Your task to perform on an android device: Open calendar and show me the first week of next month Image 0: 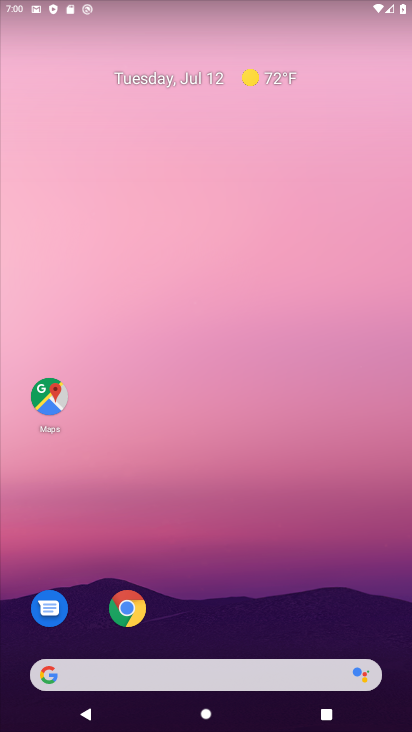
Step 0: drag from (239, 565) to (189, 111)
Your task to perform on an android device: Open calendar and show me the first week of next month Image 1: 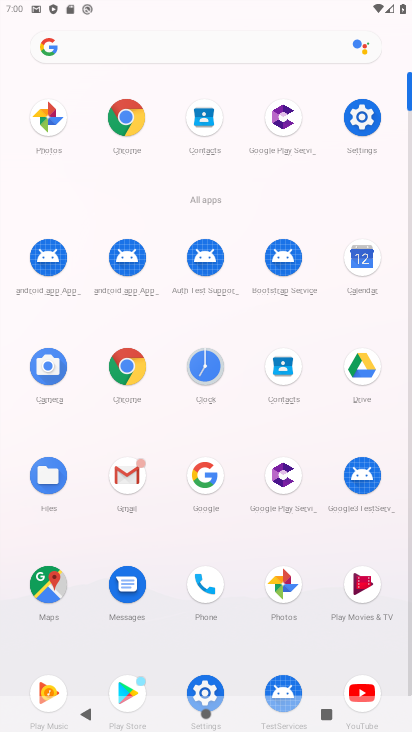
Step 1: click (361, 252)
Your task to perform on an android device: Open calendar and show me the first week of next month Image 2: 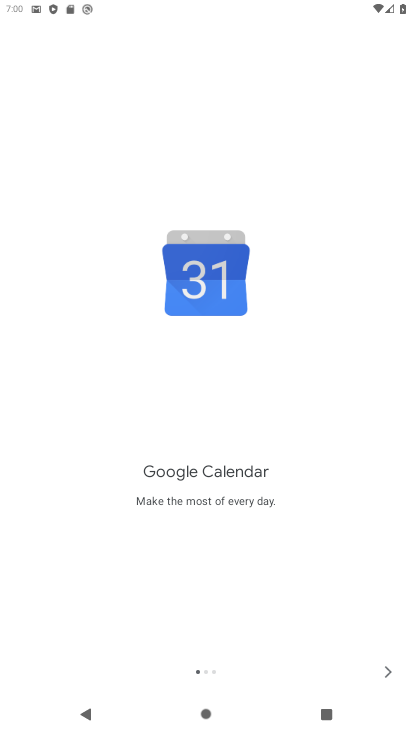
Step 2: click (392, 671)
Your task to perform on an android device: Open calendar and show me the first week of next month Image 3: 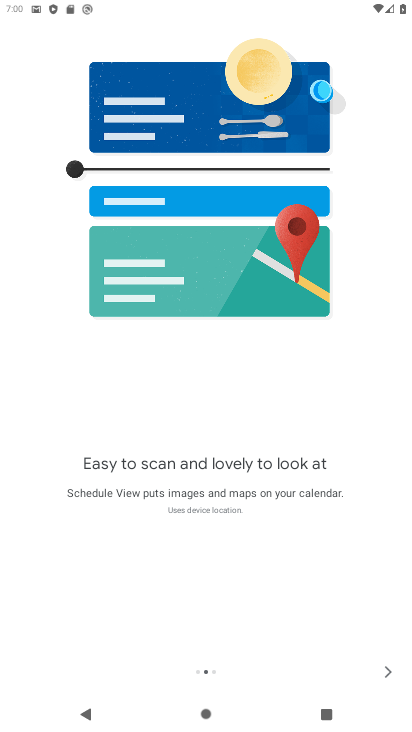
Step 3: click (392, 671)
Your task to perform on an android device: Open calendar and show me the first week of next month Image 4: 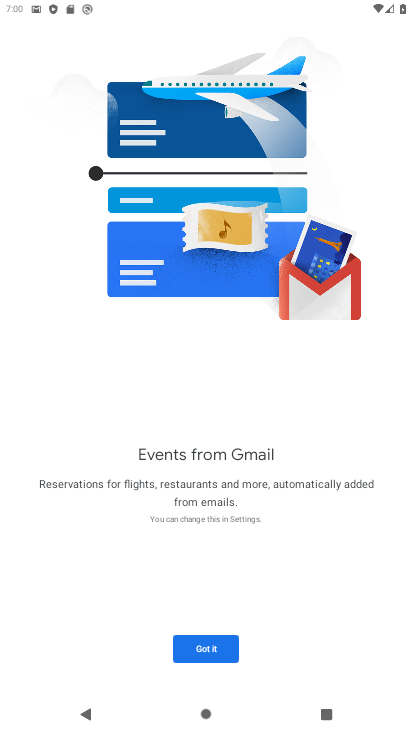
Step 4: click (215, 648)
Your task to perform on an android device: Open calendar and show me the first week of next month Image 5: 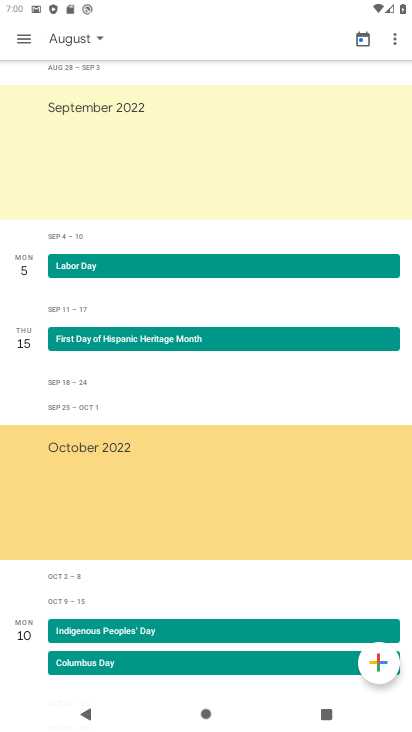
Step 5: click (25, 41)
Your task to perform on an android device: Open calendar and show me the first week of next month Image 6: 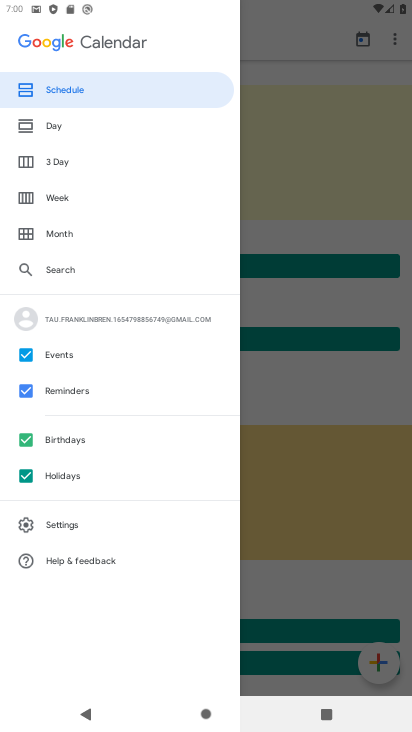
Step 6: click (56, 193)
Your task to perform on an android device: Open calendar and show me the first week of next month Image 7: 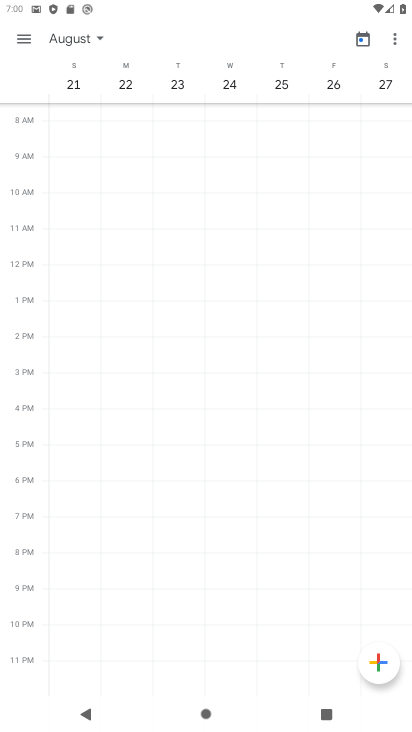
Step 7: click (102, 38)
Your task to perform on an android device: Open calendar and show me the first week of next month Image 8: 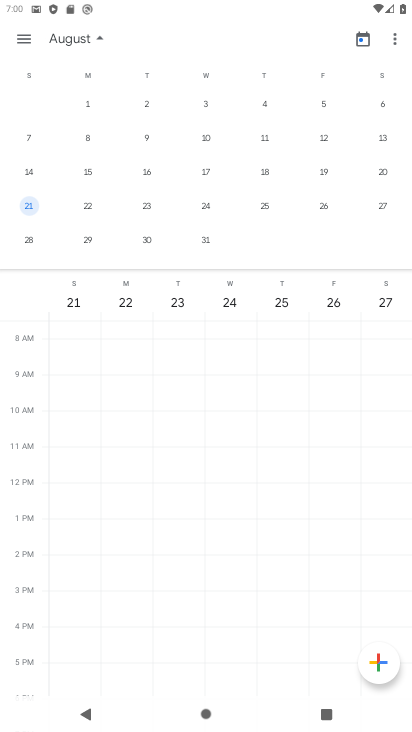
Step 8: click (89, 98)
Your task to perform on an android device: Open calendar and show me the first week of next month Image 9: 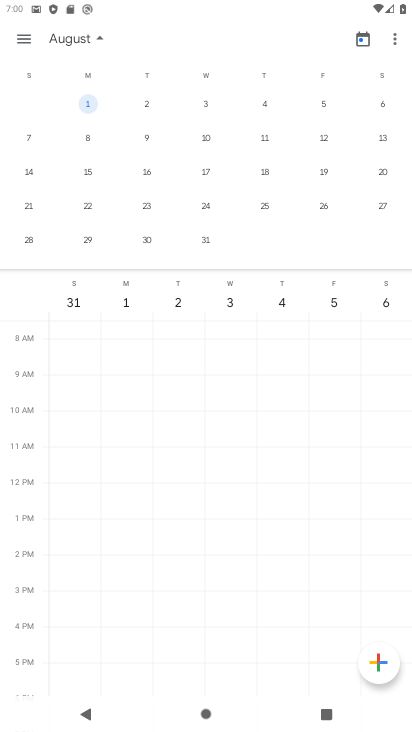
Step 9: task complete